Your task to perform on an android device: Open Chrome and go to the settings page Image 0: 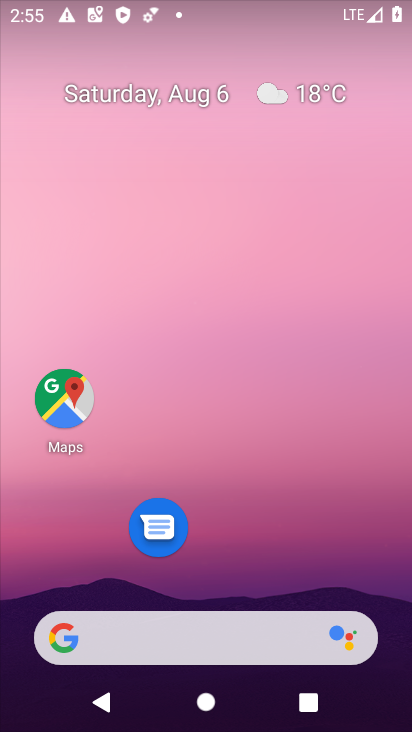
Step 0: drag from (224, 508) to (255, 110)
Your task to perform on an android device: Open Chrome and go to the settings page Image 1: 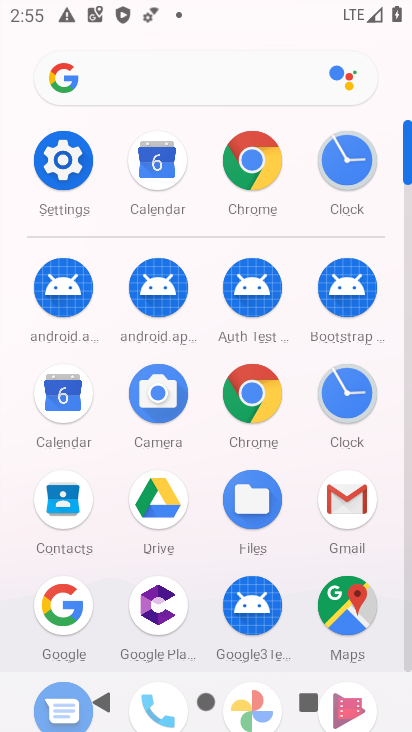
Step 1: drag from (206, 256) to (205, 52)
Your task to perform on an android device: Open Chrome and go to the settings page Image 2: 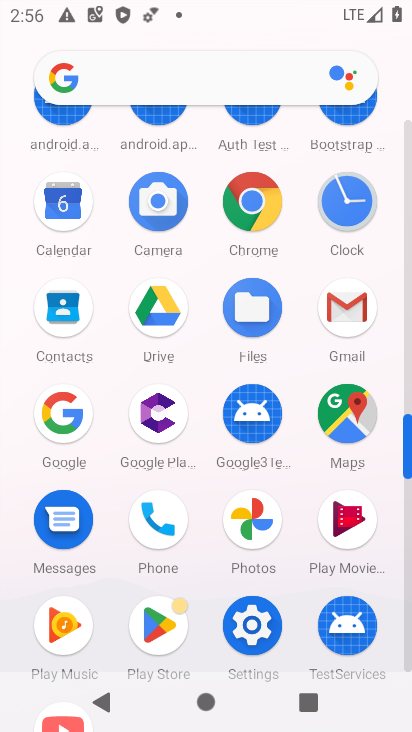
Step 2: click (247, 214)
Your task to perform on an android device: Open Chrome and go to the settings page Image 3: 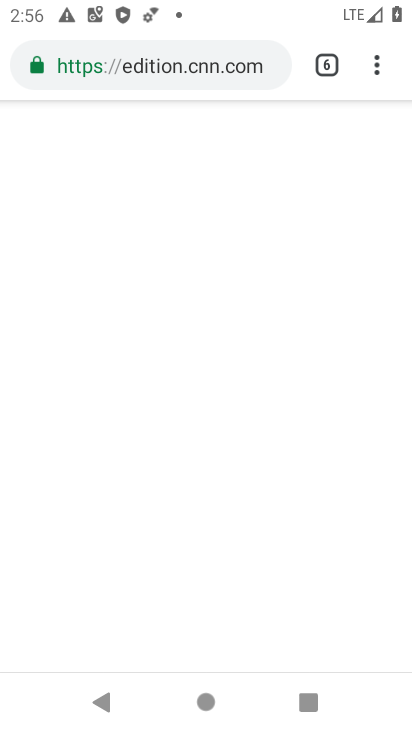
Step 3: click (368, 71)
Your task to perform on an android device: Open Chrome and go to the settings page Image 4: 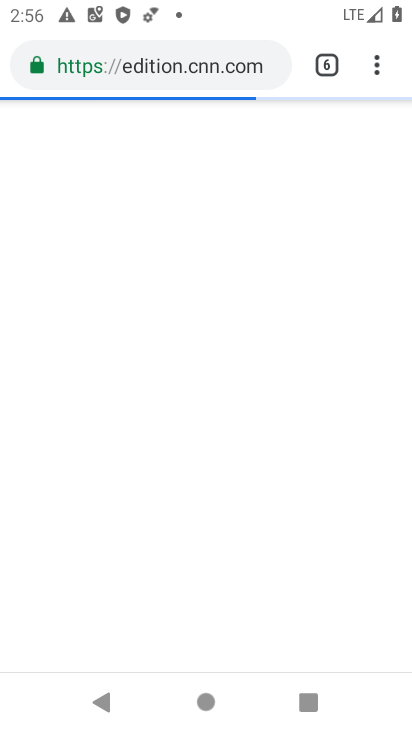
Step 4: click (379, 67)
Your task to perform on an android device: Open Chrome and go to the settings page Image 5: 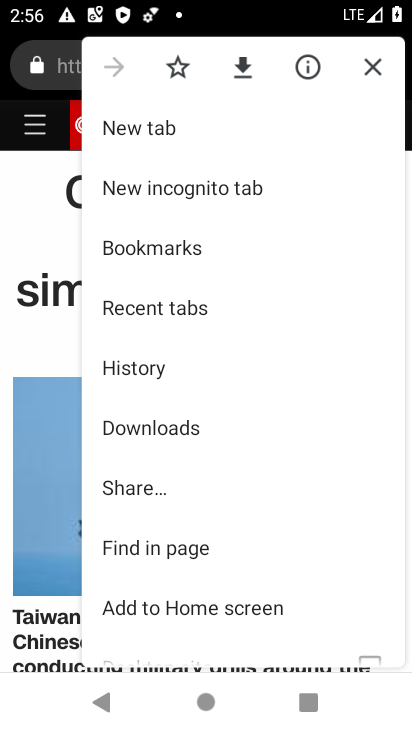
Step 5: drag from (219, 457) to (273, 144)
Your task to perform on an android device: Open Chrome and go to the settings page Image 6: 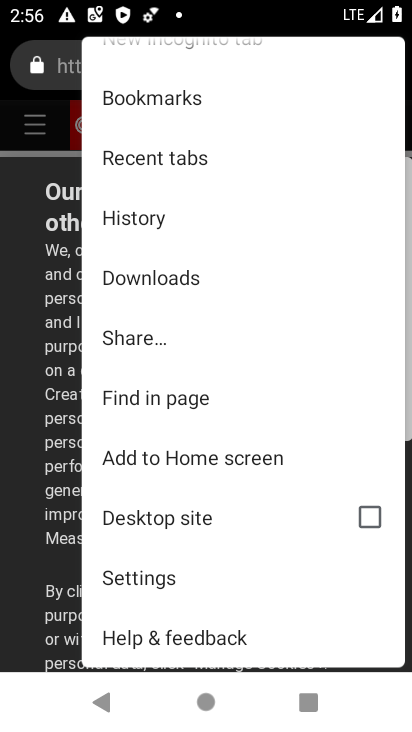
Step 6: click (178, 586)
Your task to perform on an android device: Open Chrome and go to the settings page Image 7: 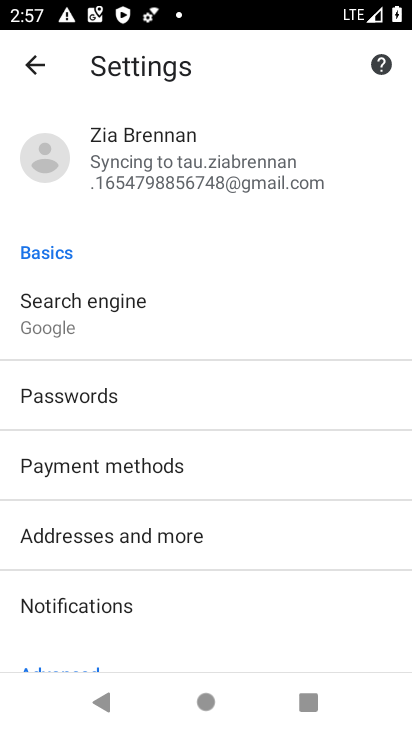
Step 7: task complete